Your task to perform on an android device: Open battery settings Image 0: 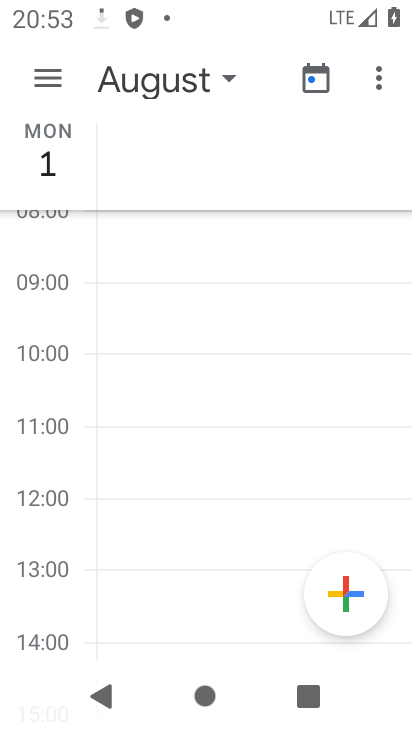
Step 0: press back button
Your task to perform on an android device: Open battery settings Image 1: 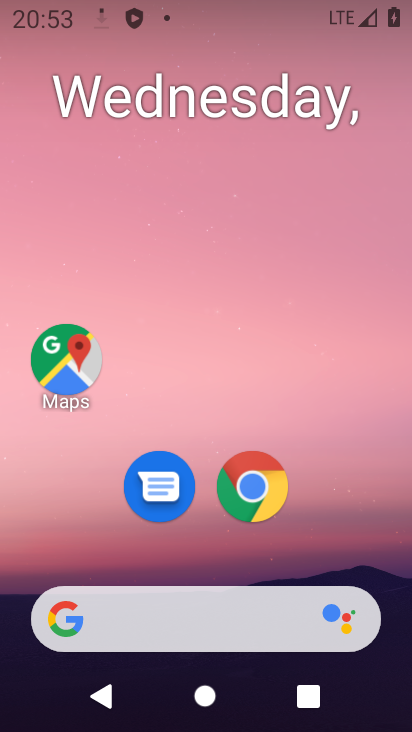
Step 1: drag from (92, 527) to (169, 44)
Your task to perform on an android device: Open battery settings Image 2: 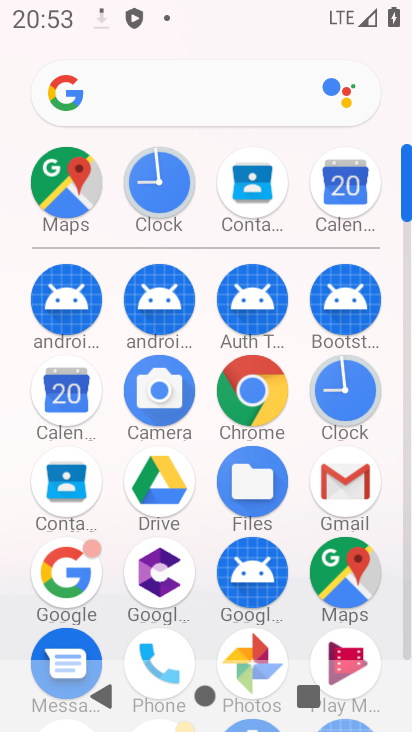
Step 2: drag from (177, 543) to (285, 53)
Your task to perform on an android device: Open battery settings Image 3: 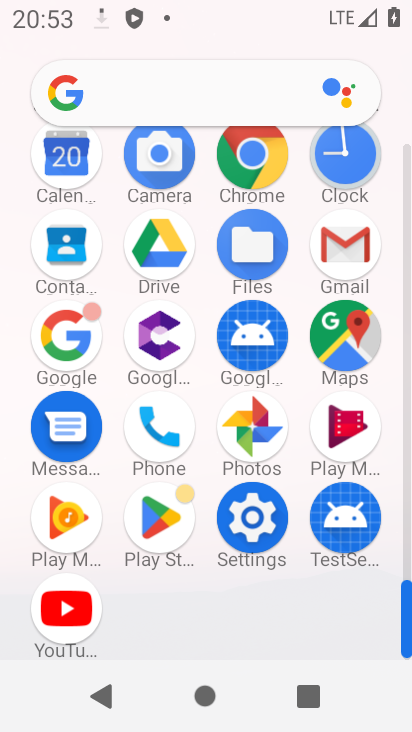
Step 3: click (250, 542)
Your task to perform on an android device: Open battery settings Image 4: 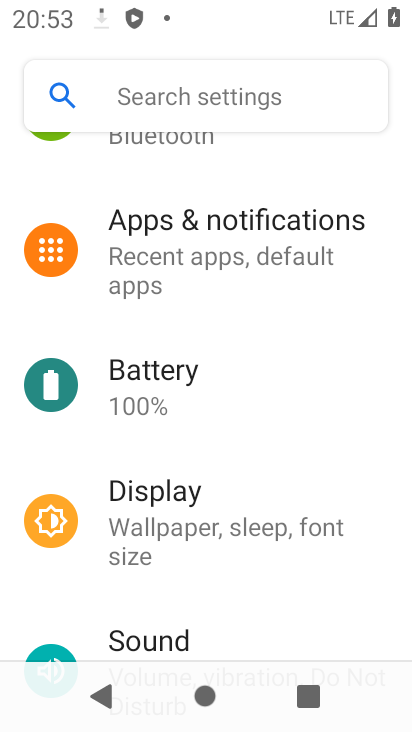
Step 4: click (175, 397)
Your task to perform on an android device: Open battery settings Image 5: 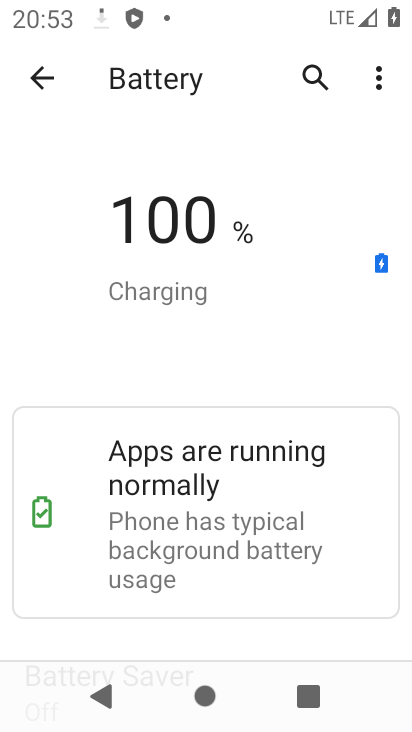
Step 5: task complete